Your task to perform on an android device: What is the recent news? Image 0: 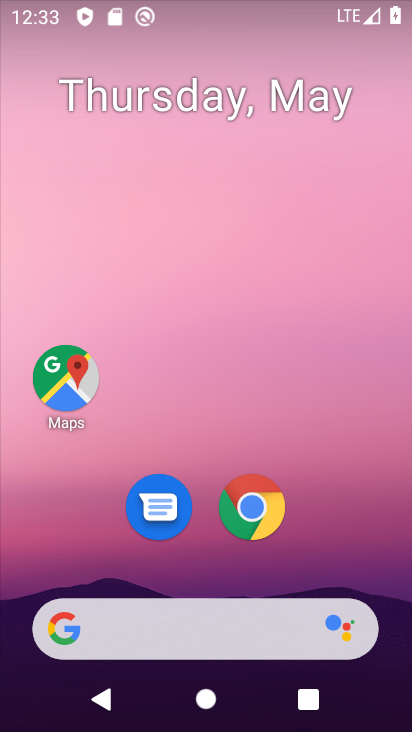
Step 0: drag from (215, 577) to (241, 174)
Your task to perform on an android device: What is the recent news? Image 1: 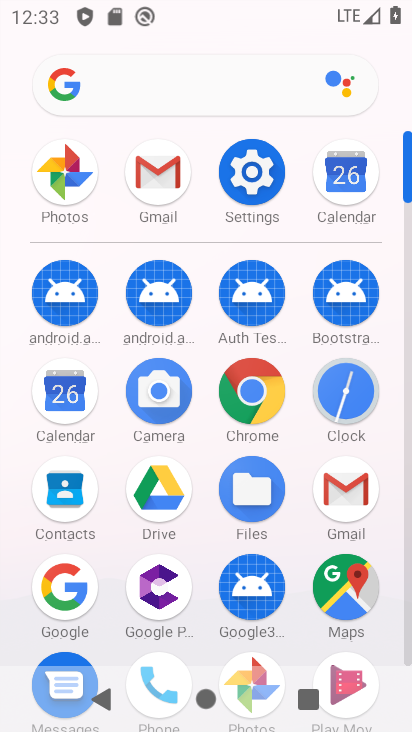
Step 1: click (70, 579)
Your task to perform on an android device: What is the recent news? Image 2: 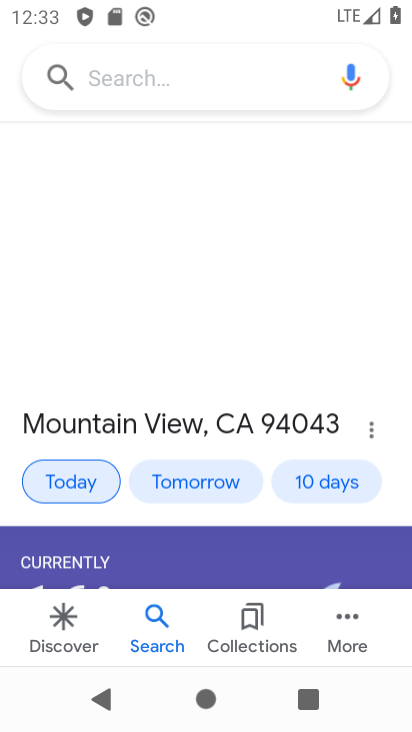
Step 2: click (198, 158)
Your task to perform on an android device: What is the recent news? Image 3: 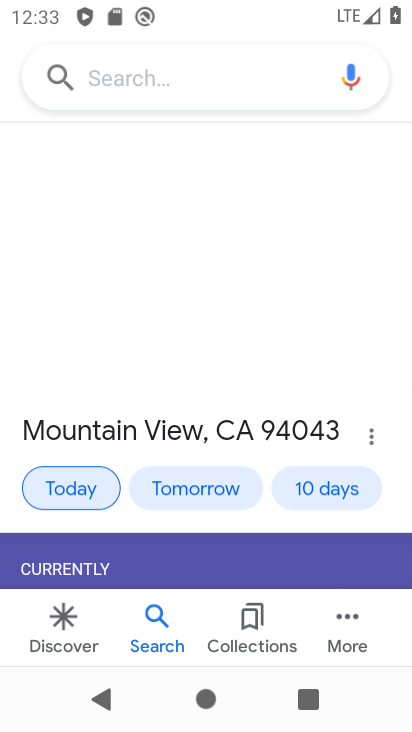
Step 3: click (167, 83)
Your task to perform on an android device: What is the recent news? Image 4: 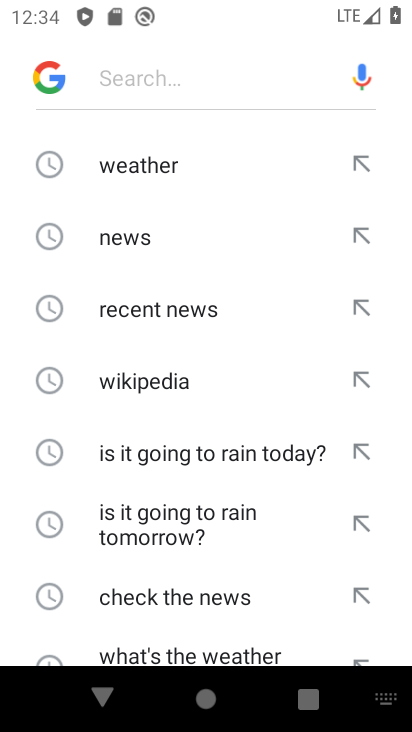
Step 4: click (145, 225)
Your task to perform on an android device: What is the recent news? Image 5: 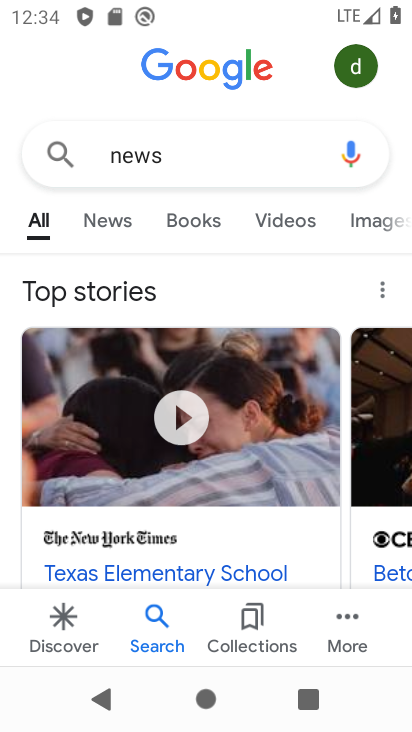
Step 5: click (127, 221)
Your task to perform on an android device: What is the recent news? Image 6: 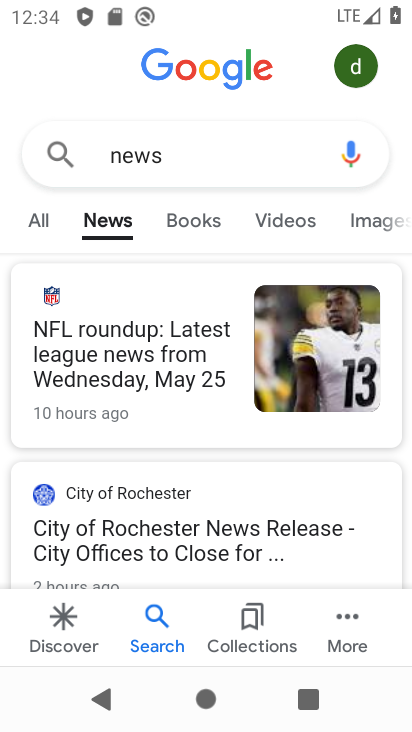
Step 6: task complete